Your task to perform on an android device: open the mobile data screen to see how much data has been used Image 0: 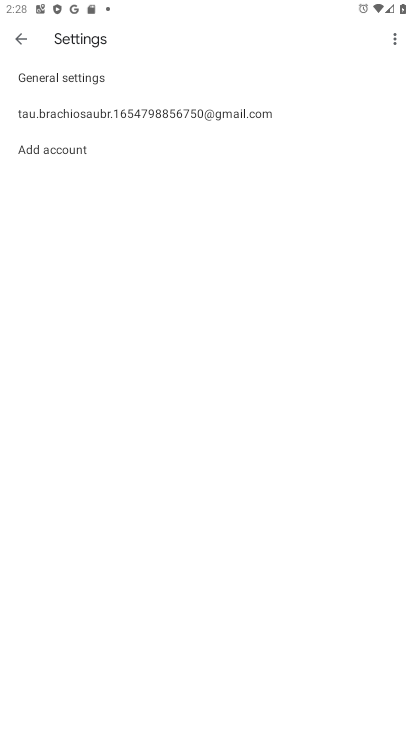
Step 0: press home button
Your task to perform on an android device: open the mobile data screen to see how much data has been used Image 1: 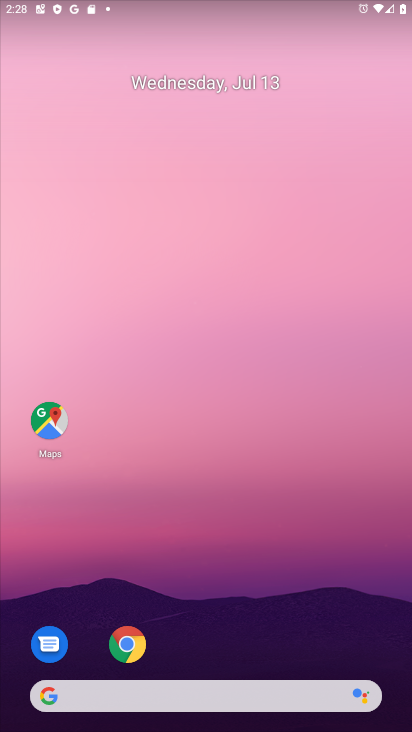
Step 1: drag from (179, 677) to (208, 0)
Your task to perform on an android device: open the mobile data screen to see how much data has been used Image 2: 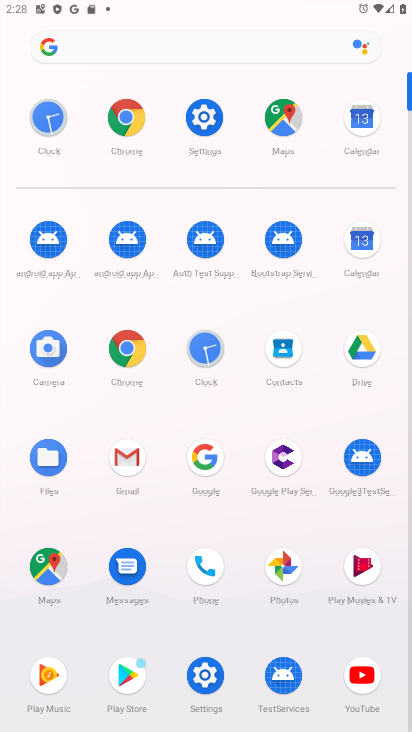
Step 2: click (192, 112)
Your task to perform on an android device: open the mobile data screen to see how much data has been used Image 3: 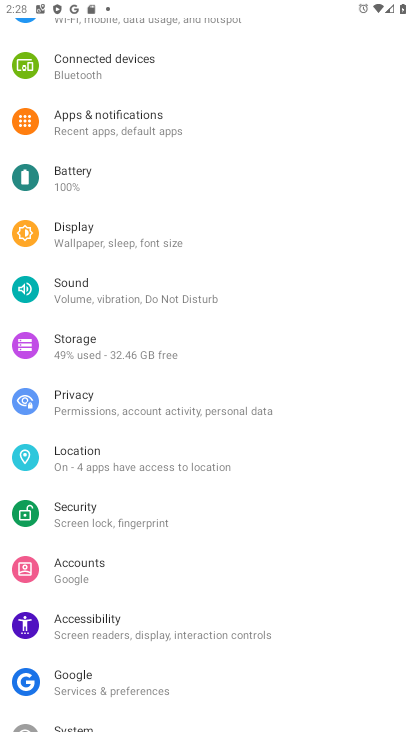
Step 3: drag from (188, 118) to (131, 502)
Your task to perform on an android device: open the mobile data screen to see how much data has been used Image 4: 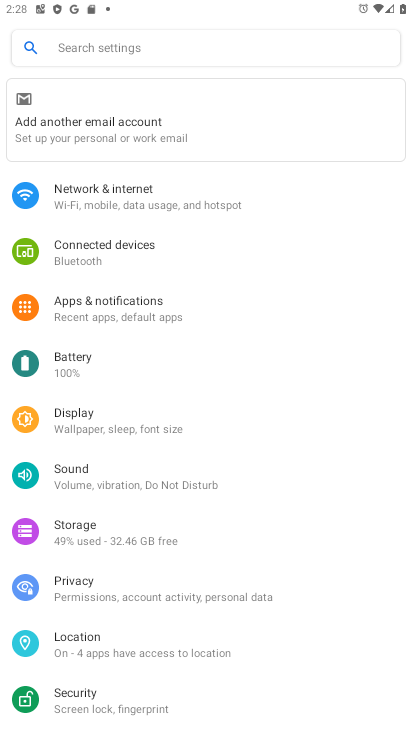
Step 4: click (97, 183)
Your task to perform on an android device: open the mobile data screen to see how much data has been used Image 5: 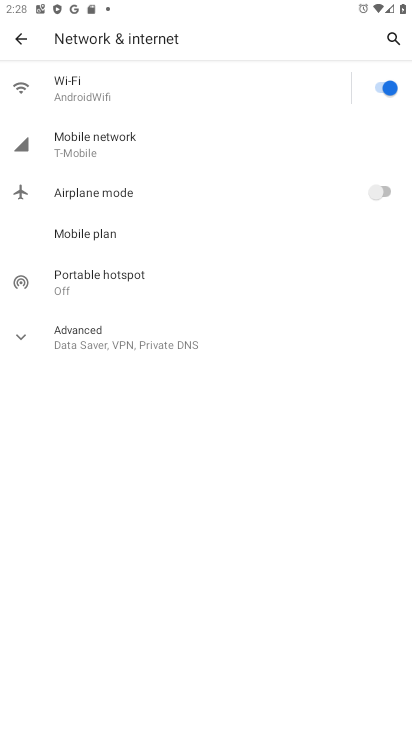
Step 5: click (99, 134)
Your task to perform on an android device: open the mobile data screen to see how much data has been used Image 6: 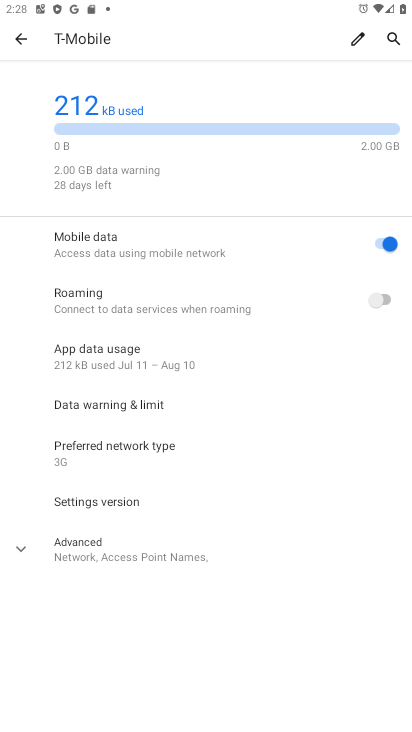
Step 6: task complete